Your task to perform on an android device: Turn off the flashlight Image 0: 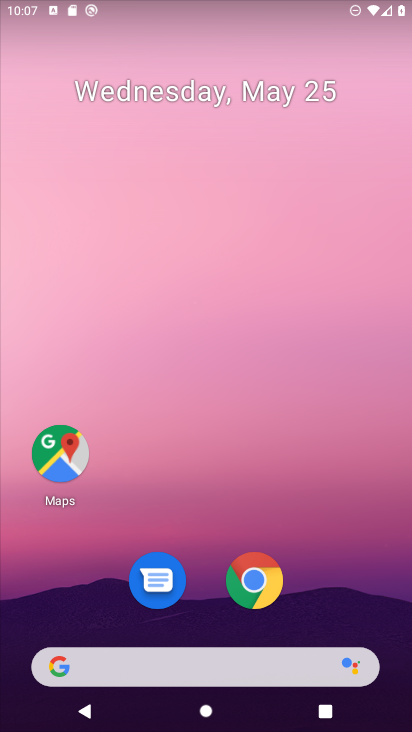
Step 0: drag from (19, 560) to (250, 161)
Your task to perform on an android device: Turn off the flashlight Image 1: 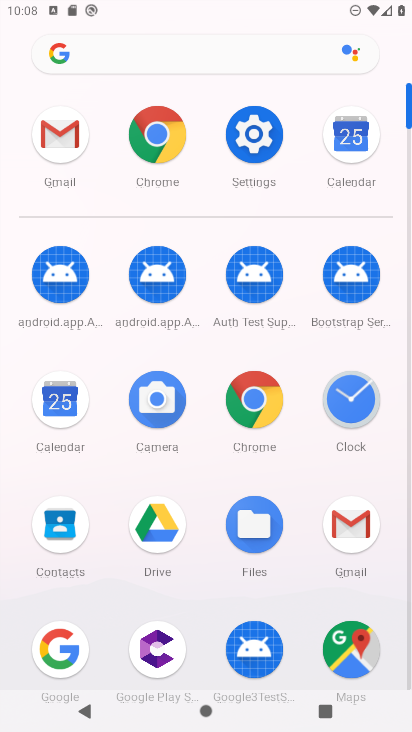
Step 1: click (257, 121)
Your task to perform on an android device: Turn off the flashlight Image 2: 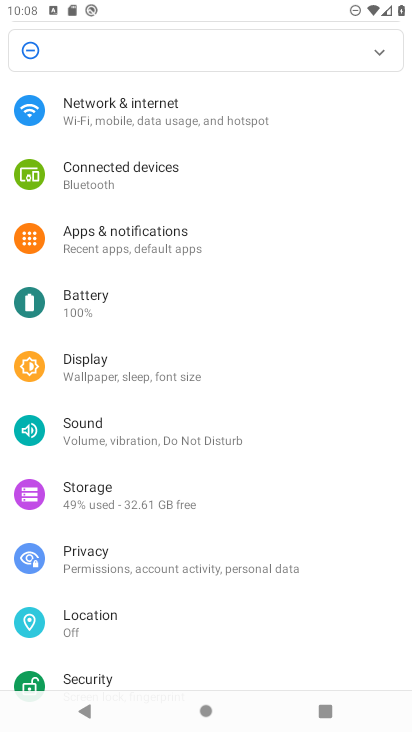
Step 2: click (88, 557)
Your task to perform on an android device: Turn off the flashlight Image 3: 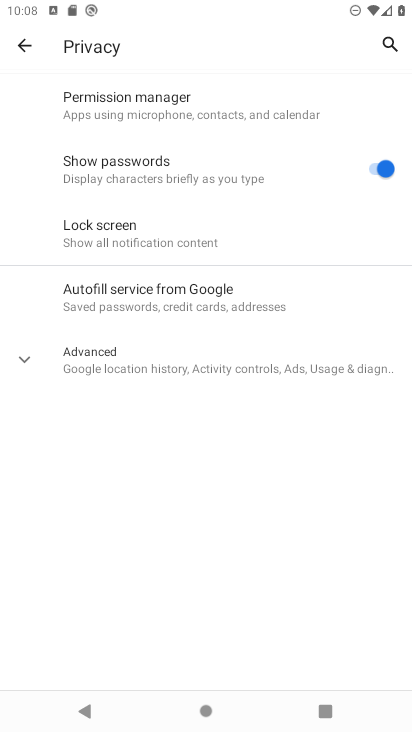
Step 3: task complete